Your task to perform on an android device: Check the news Image 0: 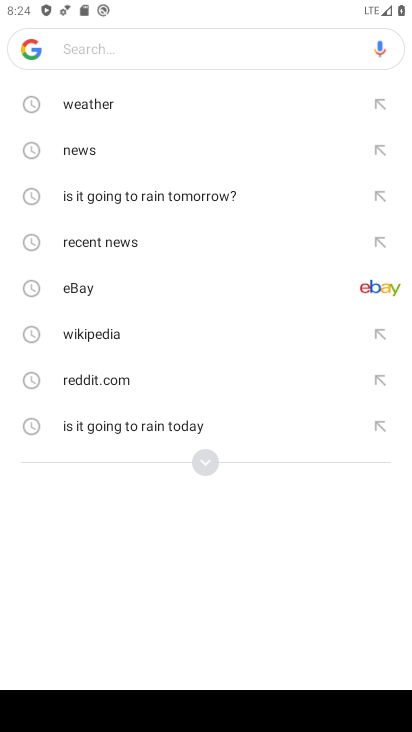
Step 0: press home button
Your task to perform on an android device: Check the news Image 1: 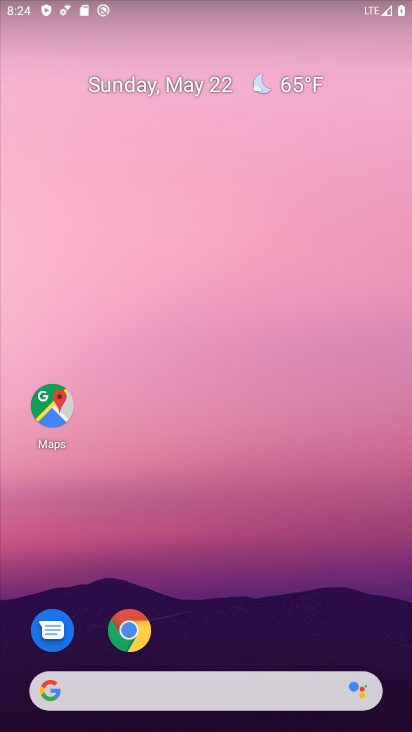
Step 1: click (54, 691)
Your task to perform on an android device: Check the news Image 2: 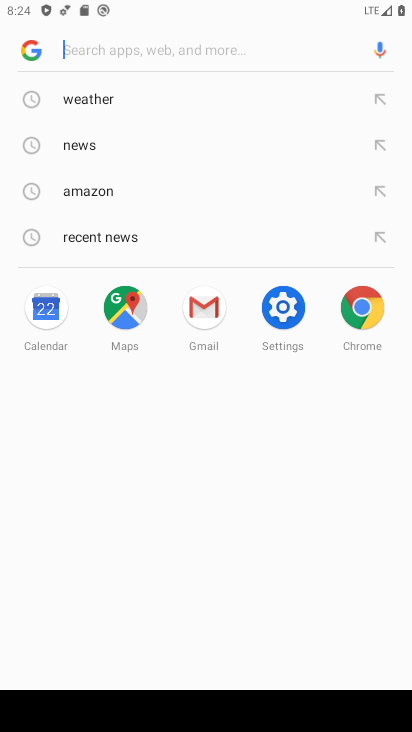
Step 2: click (83, 141)
Your task to perform on an android device: Check the news Image 3: 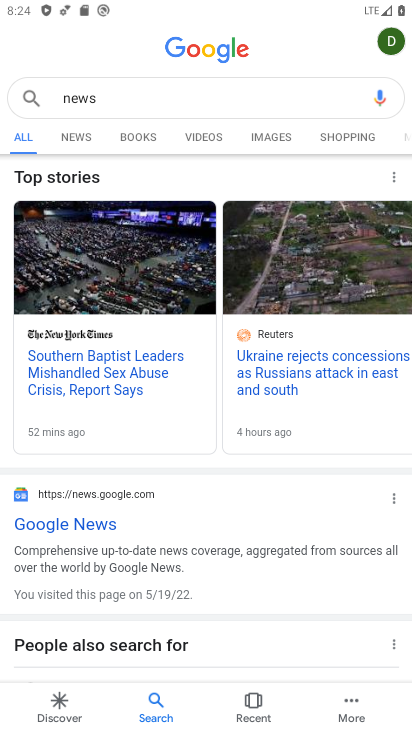
Step 3: click (93, 133)
Your task to perform on an android device: Check the news Image 4: 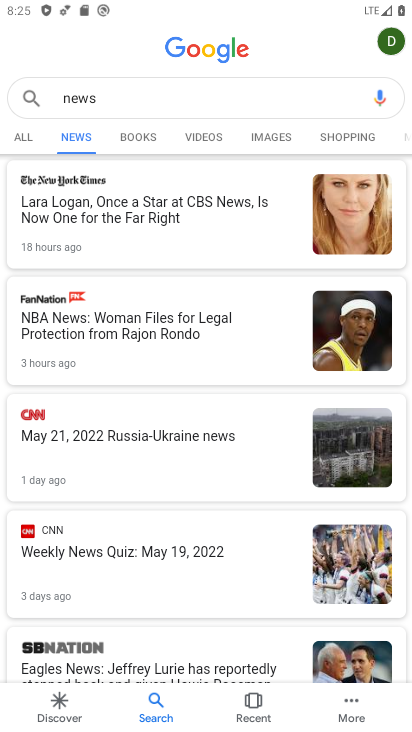
Step 4: task complete